Your task to perform on an android device: Open Yahoo.com Image 0: 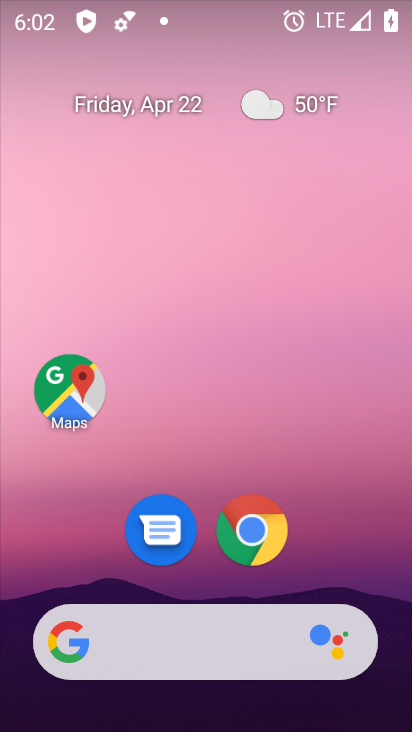
Step 0: drag from (325, 369) to (287, 13)
Your task to perform on an android device: Open Yahoo.com Image 1: 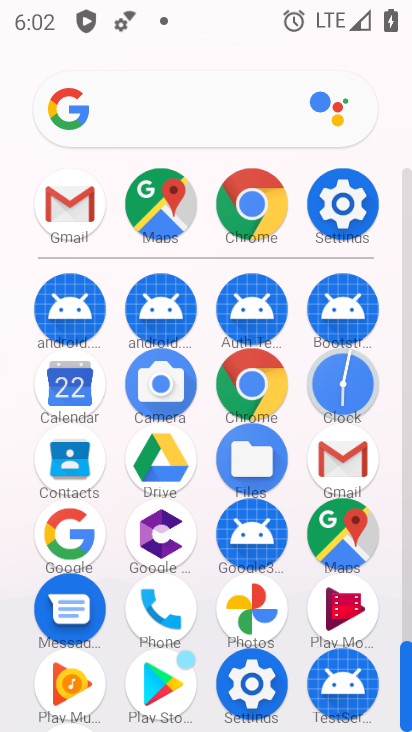
Step 1: click (235, 190)
Your task to perform on an android device: Open Yahoo.com Image 2: 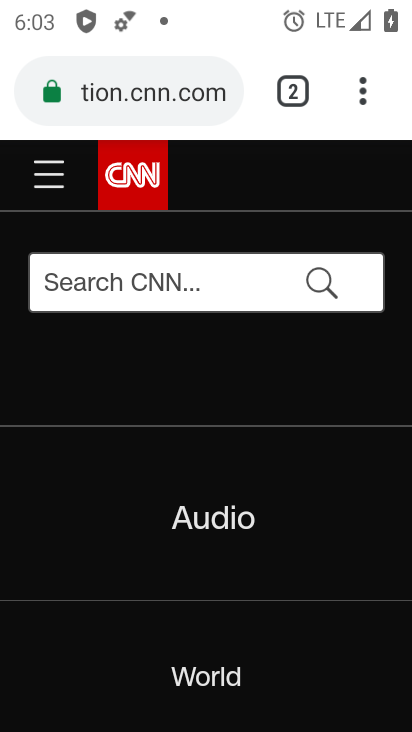
Step 2: drag from (363, 98) to (143, 297)
Your task to perform on an android device: Open Yahoo.com Image 3: 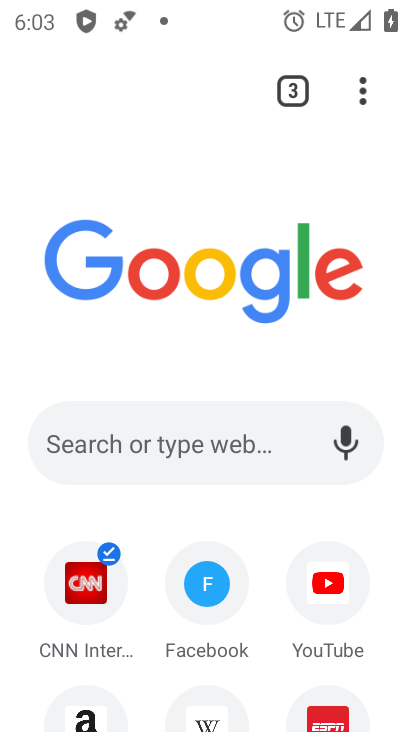
Step 3: drag from (398, 454) to (399, 221)
Your task to perform on an android device: Open Yahoo.com Image 4: 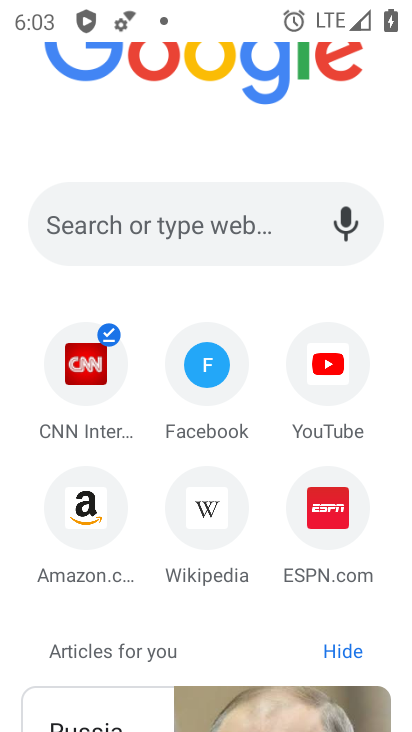
Step 4: click (184, 224)
Your task to perform on an android device: Open Yahoo.com Image 5: 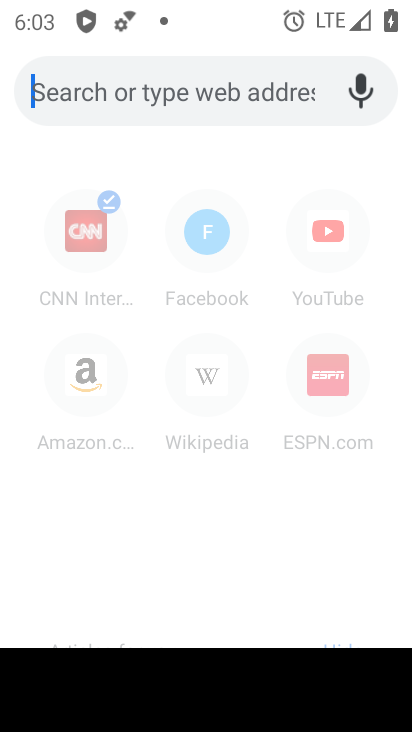
Step 5: type "Yahoo.com"
Your task to perform on an android device: Open Yahoo.com Image 6: 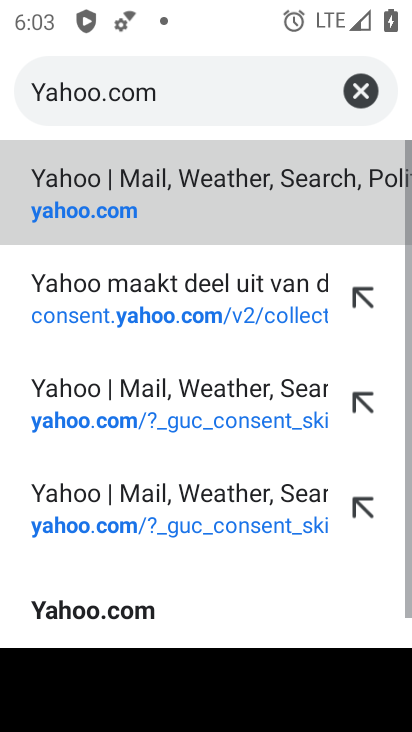
Step 6: click (84, 192)
Your task to perform on an android device: Open Yahoo.com Image 7: 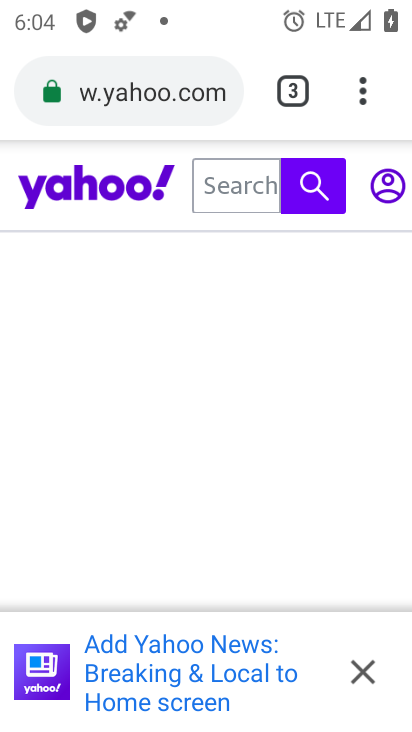
Step 7: task complete